Your task to perform on an android device: Open accessibility settings Image 0: 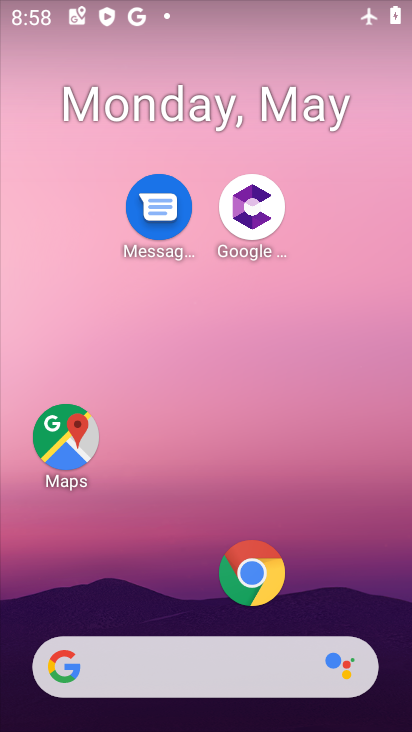
Step 0: drag from (214, 638) to (277, 195)
Your task to perform on an android device: Open accessibility settings Image 1: 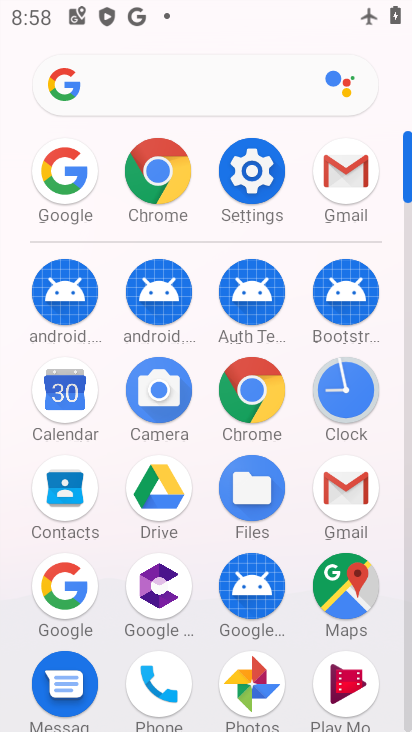
Step 1: click (260, 176)
Your task to perform on an android device: Open accessibility settings Image 2: 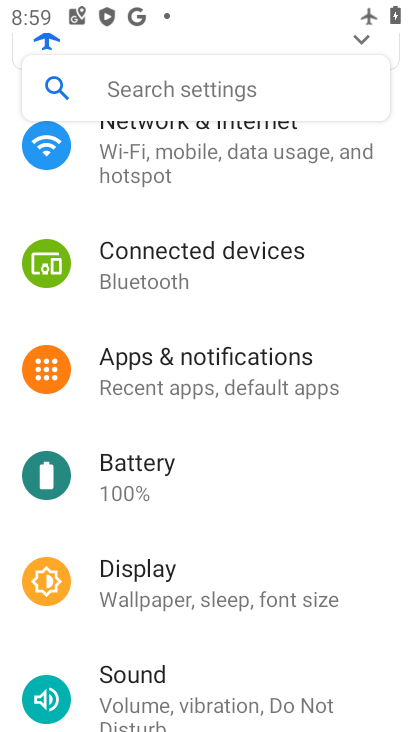
Step 2: drag from (194, 556) to (214, 174)
Your task to perform on an android device: Open accessibility settings Image 3: 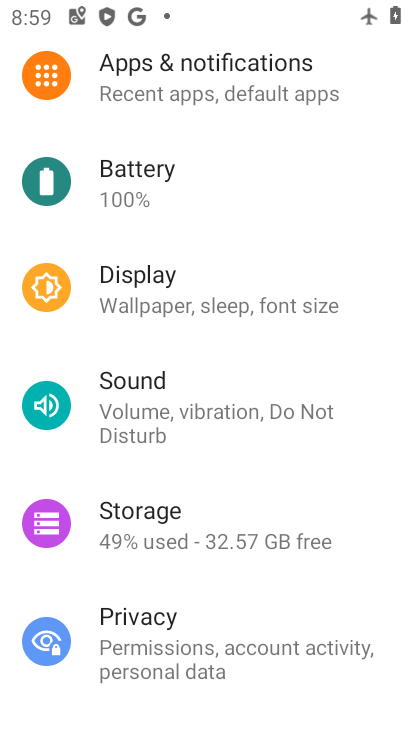
Step 3: drag from (205, 526) to (268, 188)
Your task to perform on an android device: Open accessibility settings Image 4: 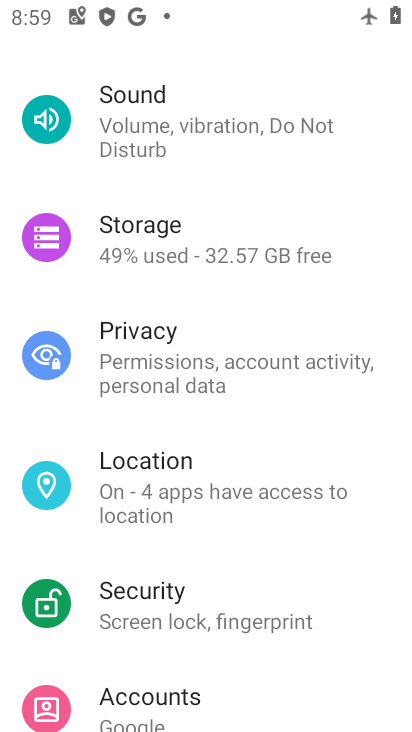
Step 4: drag from (202, 538) to (185, 166)
Your task to perform on an android device: Open accessibility settings Image 5: 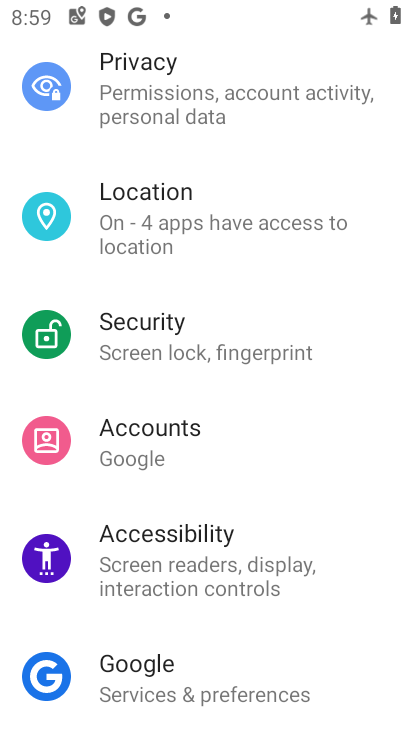
Step 5: click (170, 593)
Your task to perform on an android device: Open accessibility settings Image 6: 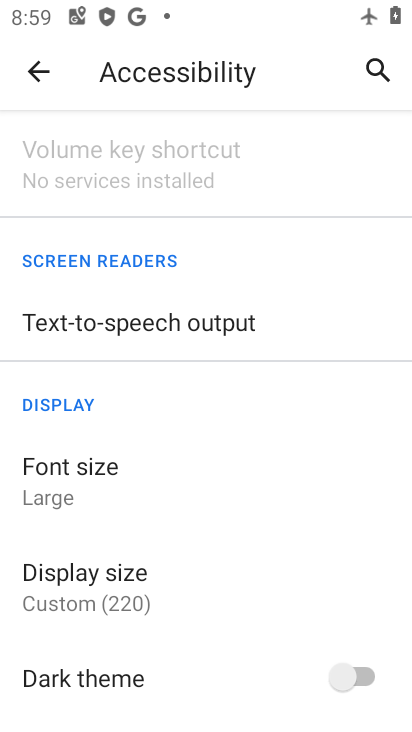
Step 6: task complete